Your task to perform on an android device: all mails in gmail Image 0: 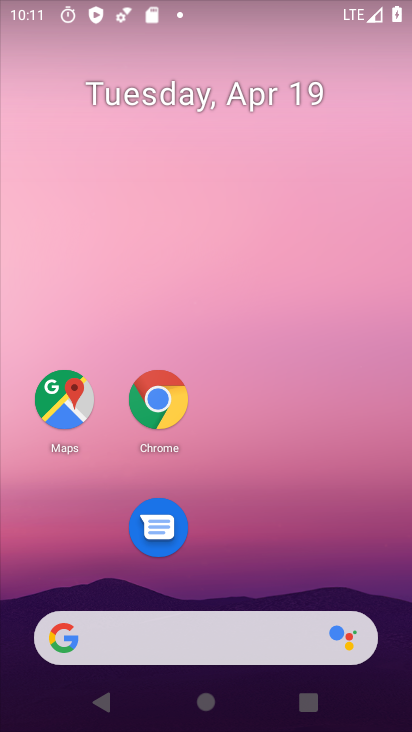
Step 0: drag from (258, 629) to (170, 243)
Your task to perform on an android device: all mails in gmail Image 1: 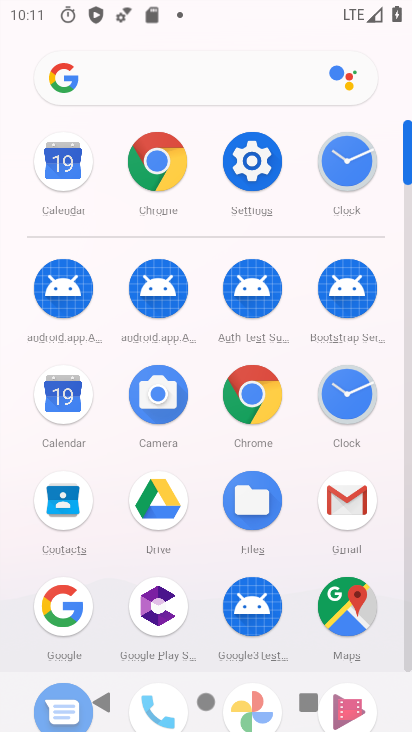
Step 1: click (353, 508)
Your task to perform on an android device: all mails in gmail Image 2: 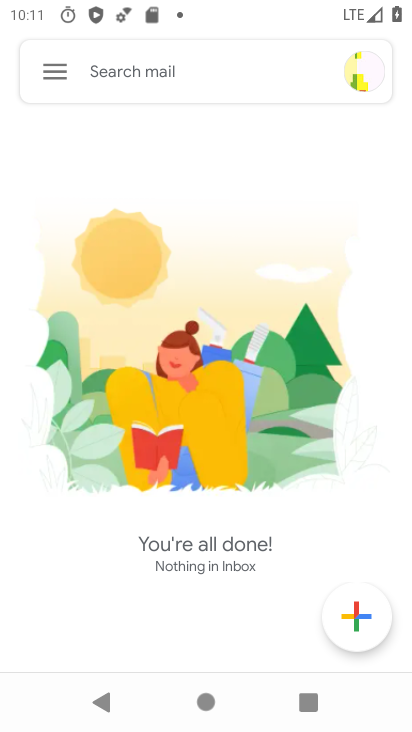
Step 2: click (54, 85)
Your task to perform on an android device: all mails in gmail Image 3: 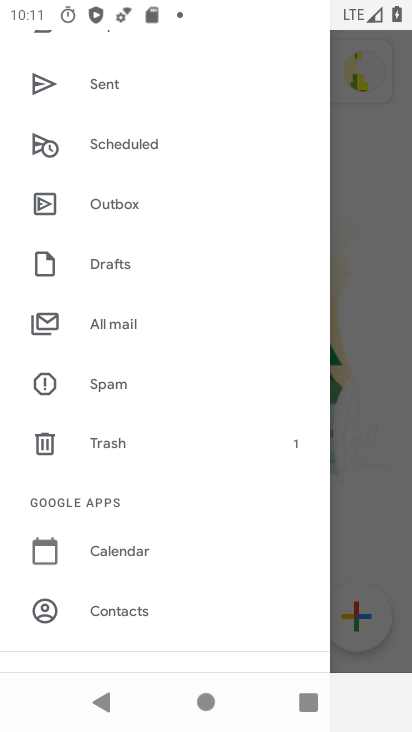
Step 3: click (103, 331)
Your task to perform on an android device: all mails in gmail Image 4: 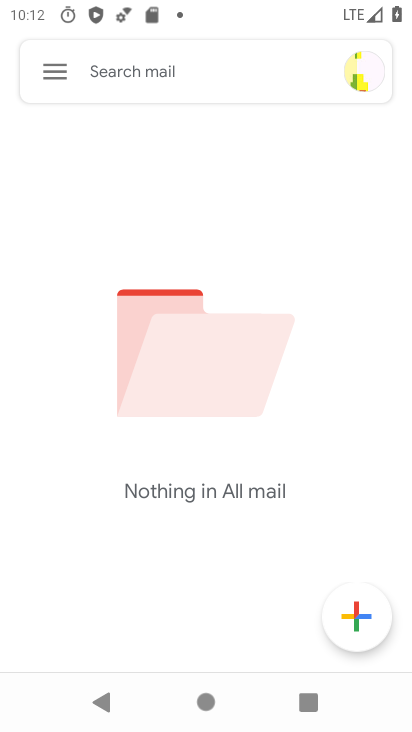
Step 4: task complete